Your task to perform on an android device: Open Youtube and go to "Your channel" Image 0: 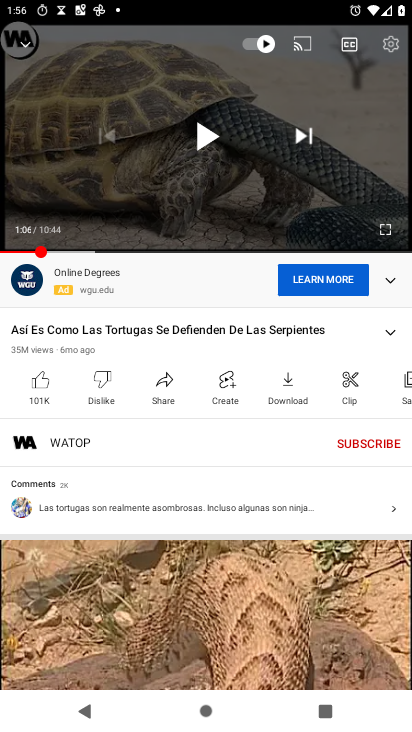
Step 0: press home button
Your task to perform on an android device: Open Youtube and go to "Your channel" Image 1: 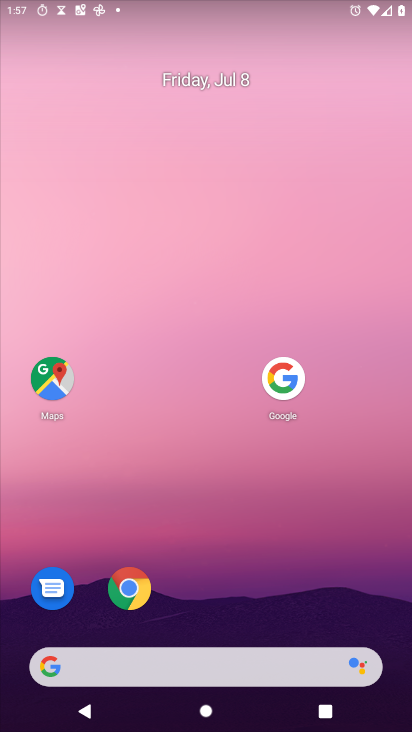
Step 1: drag from (162, 673) to (283, 175)
Your task to perform on an android device: Open Youtube and go to "Your channel" Image 2: 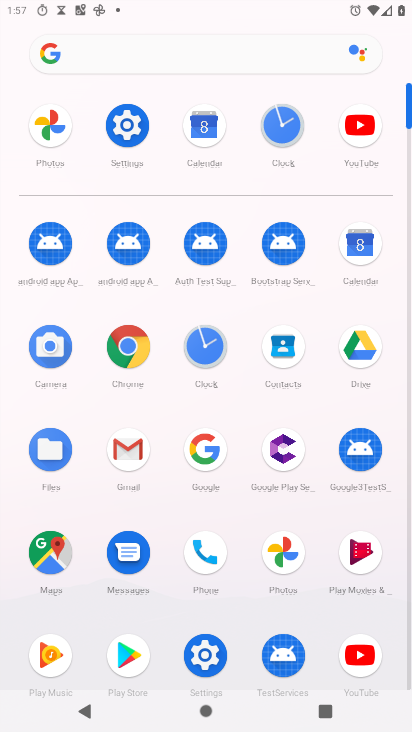
Step 2: click (360, 654)
Your task to perform on an android device: Open Youtube and go to "Your channel" Image 3: 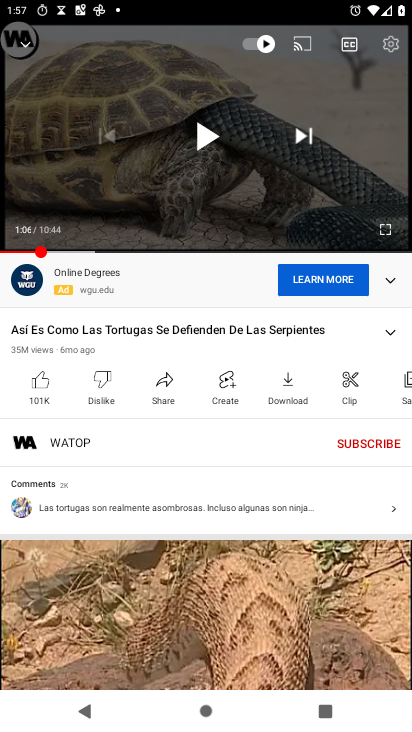
Step 3: press back button
Your task to perform on an android device: Open Youtube and go to "Your channel" Image 4: 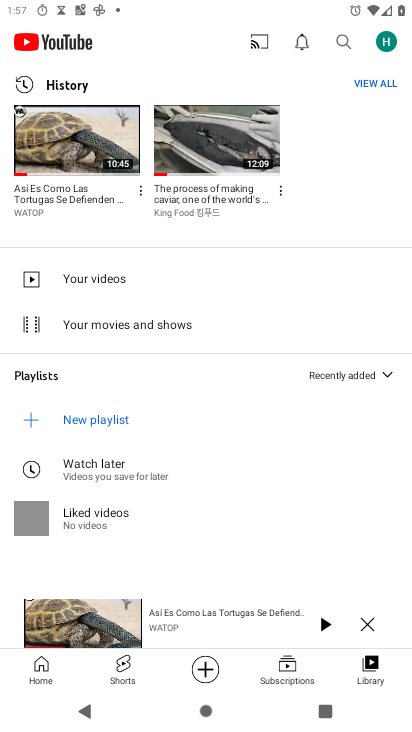
Step 4: click (366, 623)
Your task to perform on an android device: Open Youtube and go to "Your channel" Image 5: 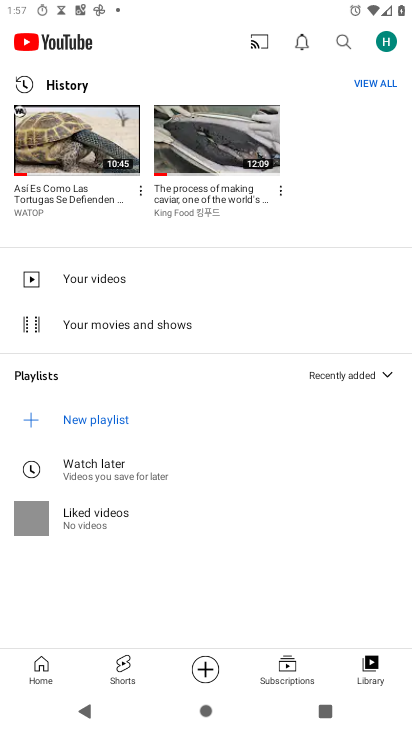
Step 5: click (385, 37)
Your task to perform on an android device: Open Youtube and go to "Your channel" Image 6: 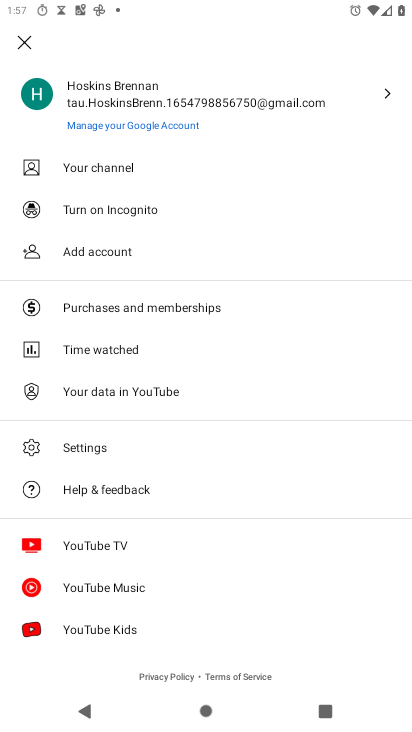
Step 6: click (127, 162)
Your task to perform on an android device: Open Youtube and go to "Your channel" Image 7: 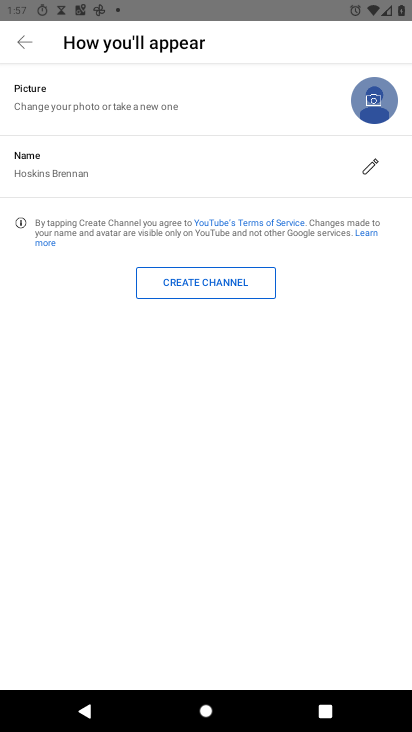
Step 7: task complete